Your task to perform on an android device: Open notification settings Image 0: 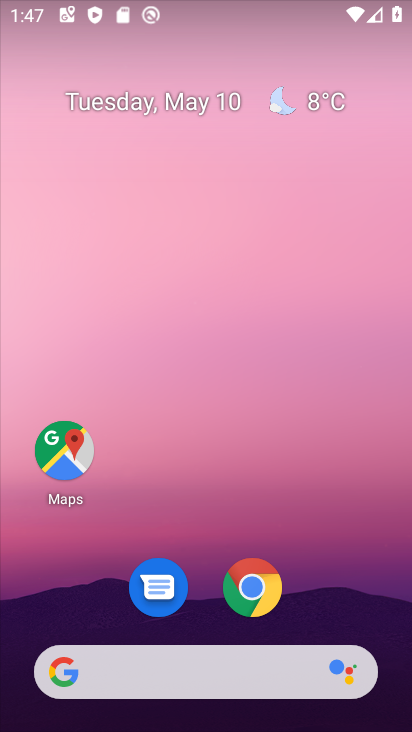
Step 0: drag from (330, 544) to (296, 104)
Your task to perform on an android device: Open notification settings Image 1: 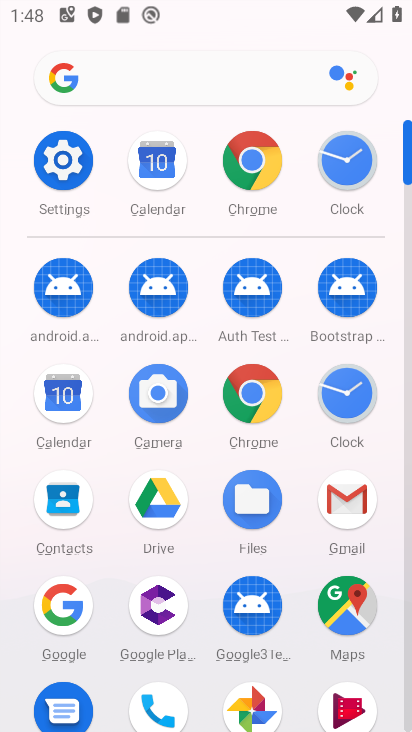
Step 1: drag from (199, 563) to (207, 207)
Your task to perform on an android device: Open notification settings Image 2: 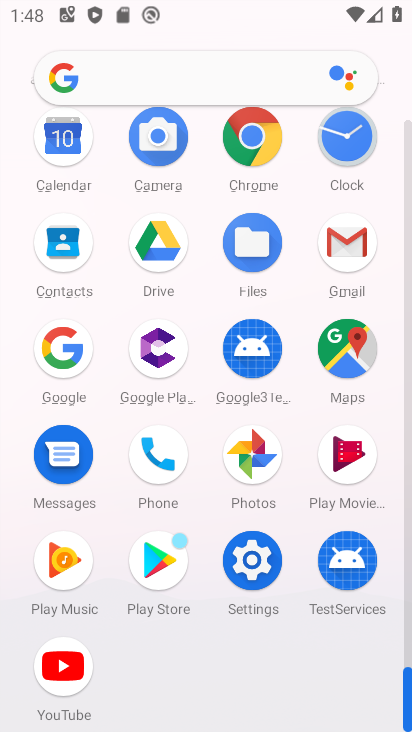
Step 2: click (257, 563)
Your task to perform on an android device: Open notification settings Image 3: 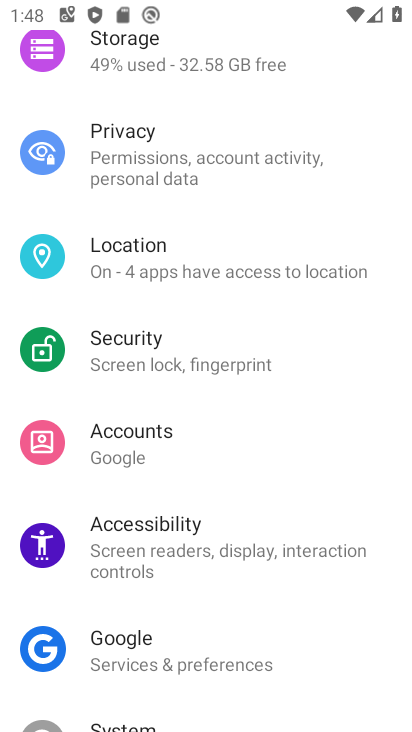
Step 3: drag from (220, 657) to (175, 341)
Your task to perform on an android device: Open notification settings Image 4: 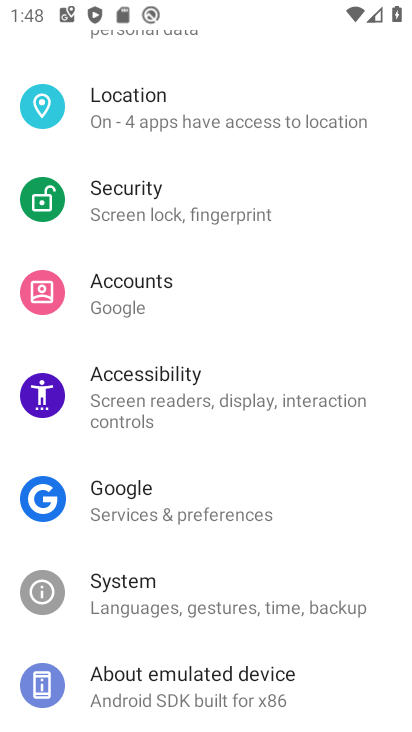
Step 4: drag from (212, 639) to (183, 359)
Your task to perform on an android device: Open notification settings Image 5: 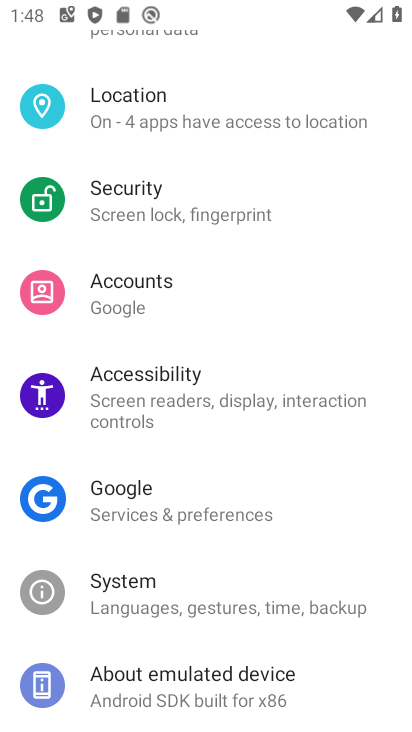
Step 5: drag from (181, 164) to (148, 687)
Your task to perform on an android device: Open notification settings Image 6: 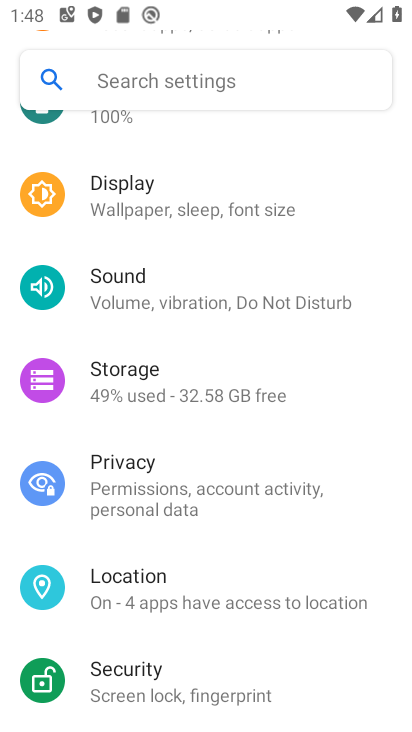
Step 6: drag from (153, 433) to (133, 710)
Your task to perform on an android device: Open notification settings Image 7: 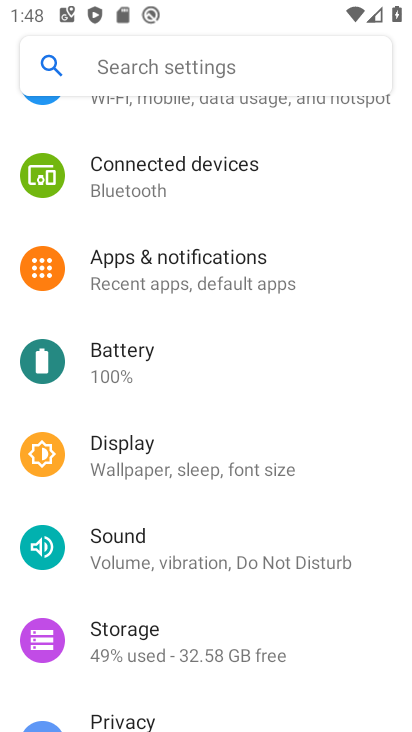
Step 7: click (139, 272)
Your task to perform on an android device: Open notification settings Image 8: 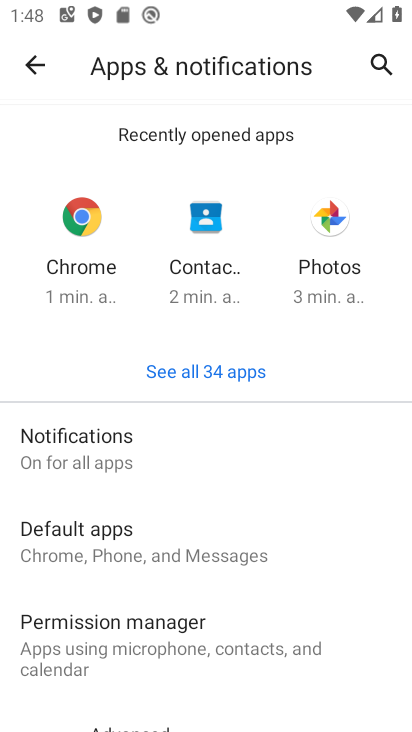
Step 8: click (155, 454)
Your task to perform on an android device: Open notification settings Image 9: 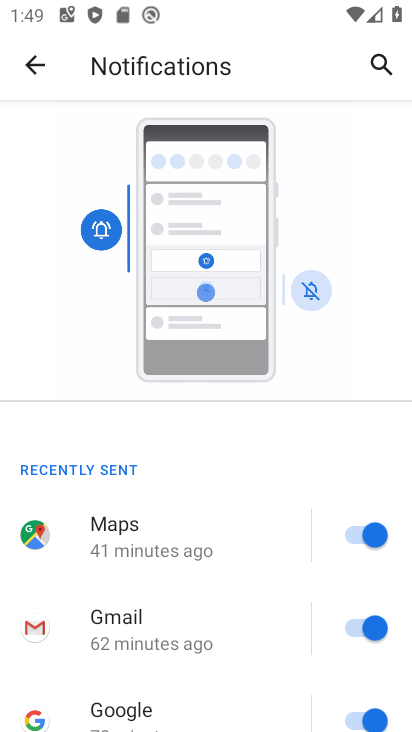
Step 9: task complete